Your task to perform on an android device: toggle airplane mode Image 0: 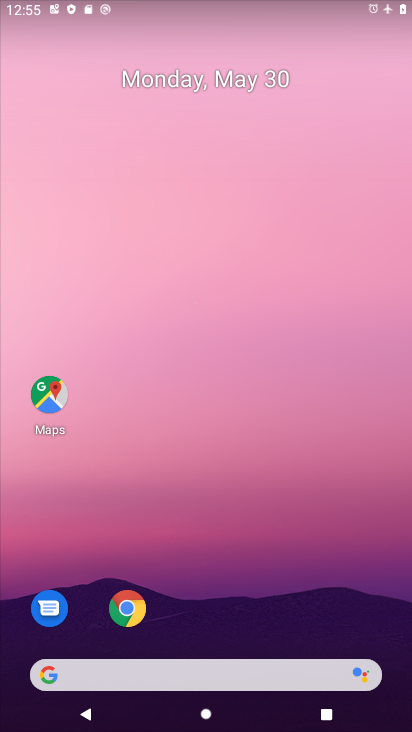
Step 0: drag from (194, 527) to (154, 74)
Your task to perform on an android device: toggle airplane mode Image 1: 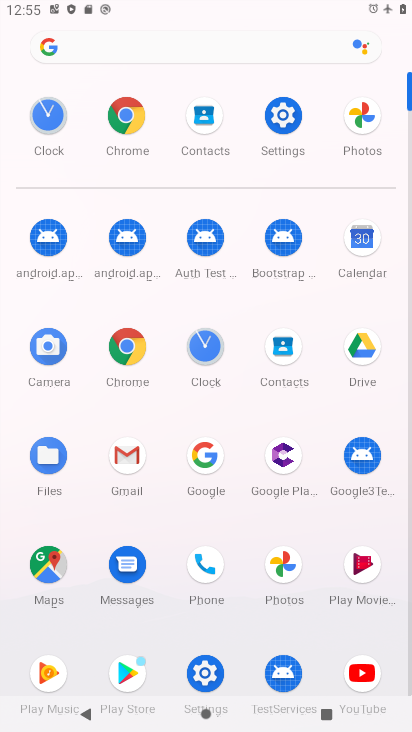
Step 1: click (294, 107)
Your task to perform on an android device: toggle airplane mode Image 2: 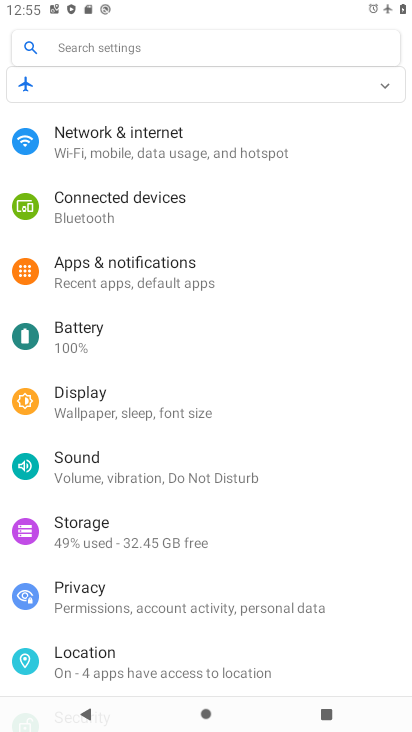
Step 2: click (146, 170)
Your task to perform on an android device: toggle airplane mode Image 3: 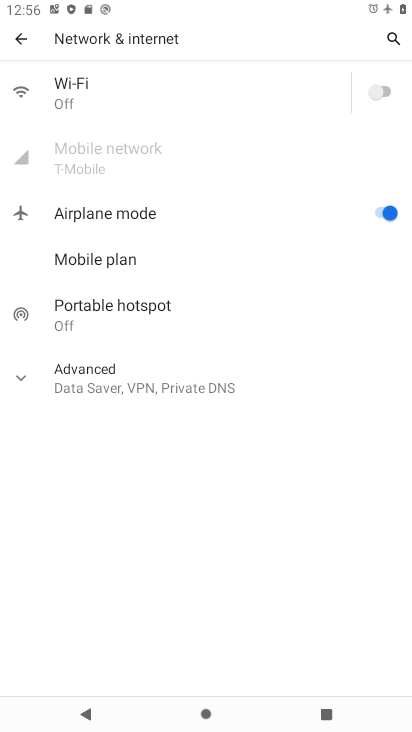
Step 3: click (388, 212)
Your task to perform on an android device: toggle airplane mode Image 4: 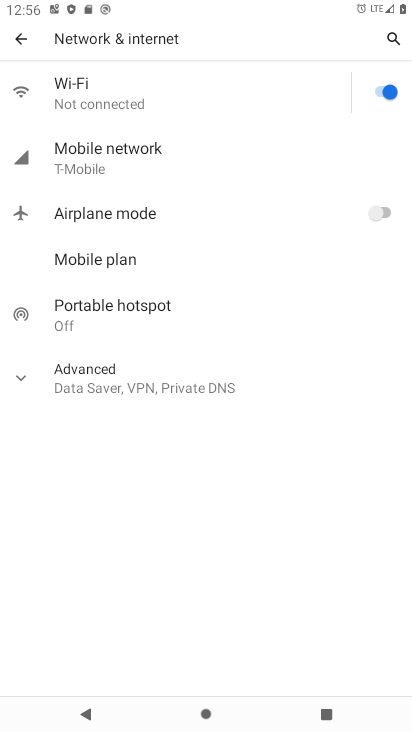
Step 4: click (388, 211)
Your task to perform on an android device: toggle airplane mode Image 5: 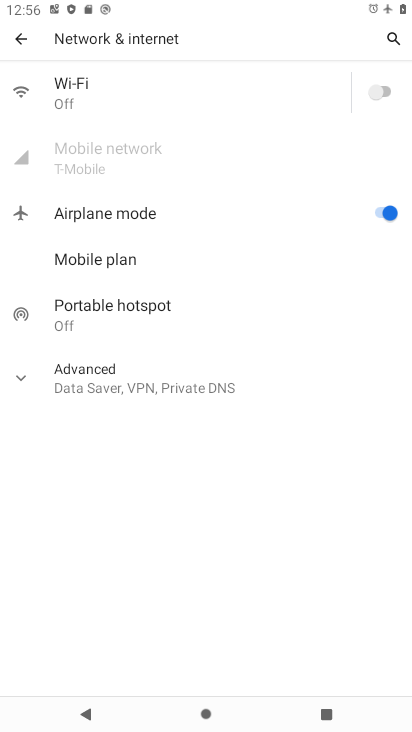
Step 5: task complete